Your task to perform on an android device: Open Google Maps and go to "Timeline" Image 0: 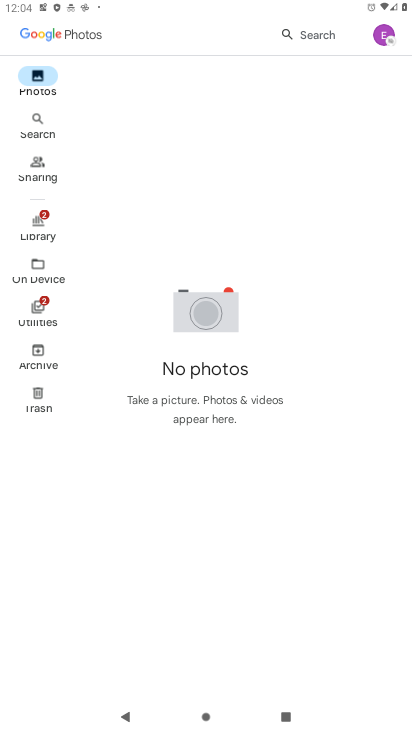
Step 0: press home button
Your task to perform on an android device: Open Google Maps and go to "Timeline" Image 1: 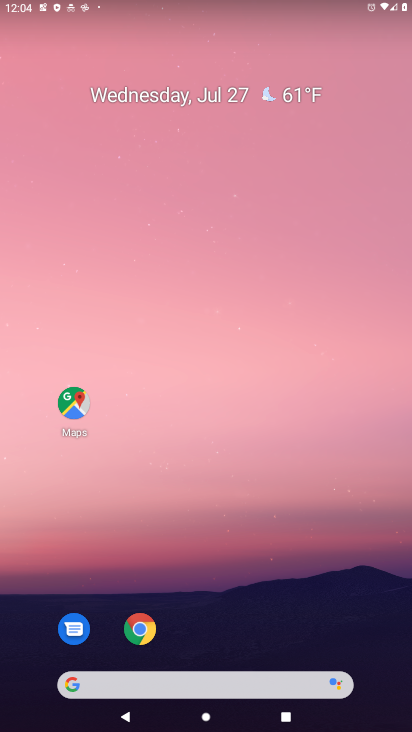
Step 1: click (69, 423)
Your task to perform on an android device: Open Google Maps and go to "Timeline" Image 2: 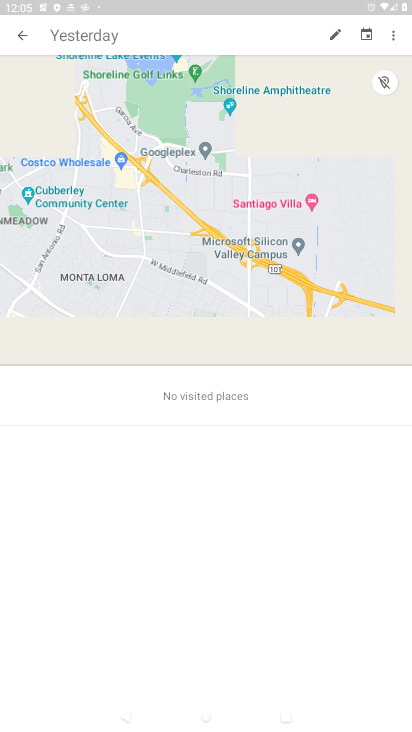
Step 2: task complete